Your task to perform on an android device: toggle location history Image 0: 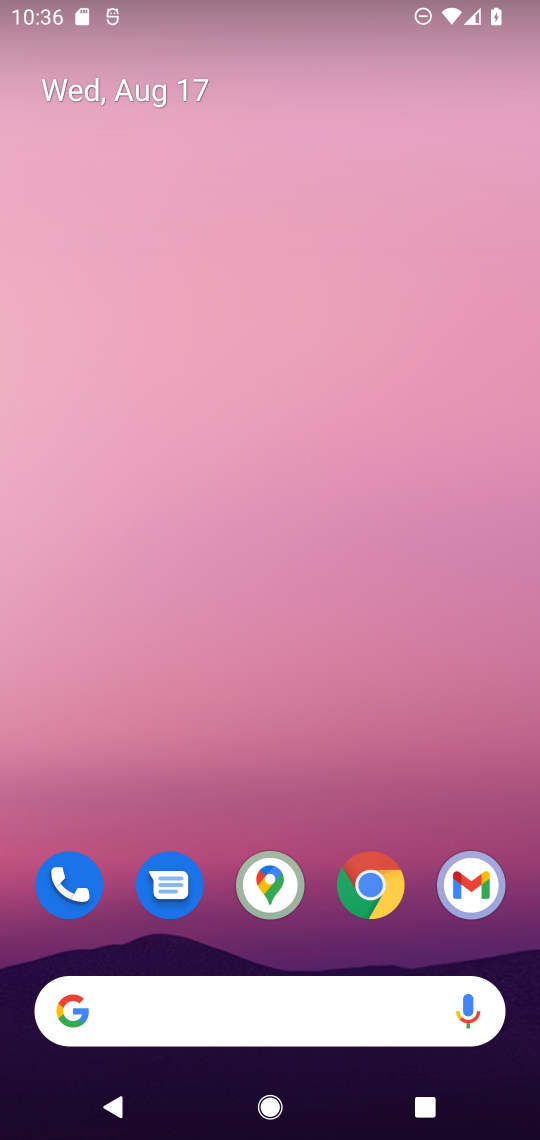
Step 0: click (268, 883)
Your task to perform on an android device: toggle location history Image 1: 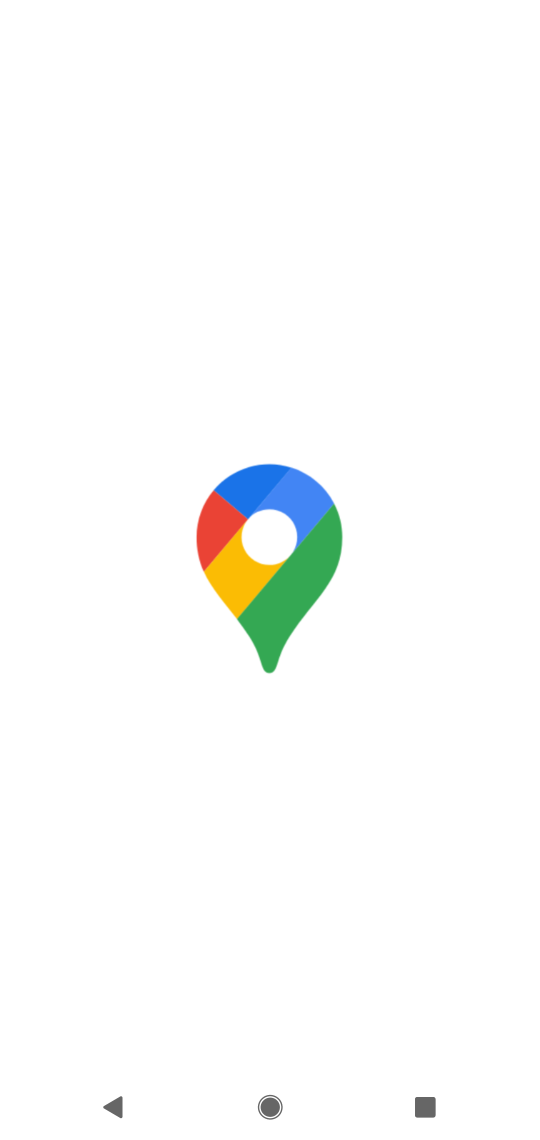
Step 1: click (276, 546)
Your task to perform on an android device: toggle location history Image 2: 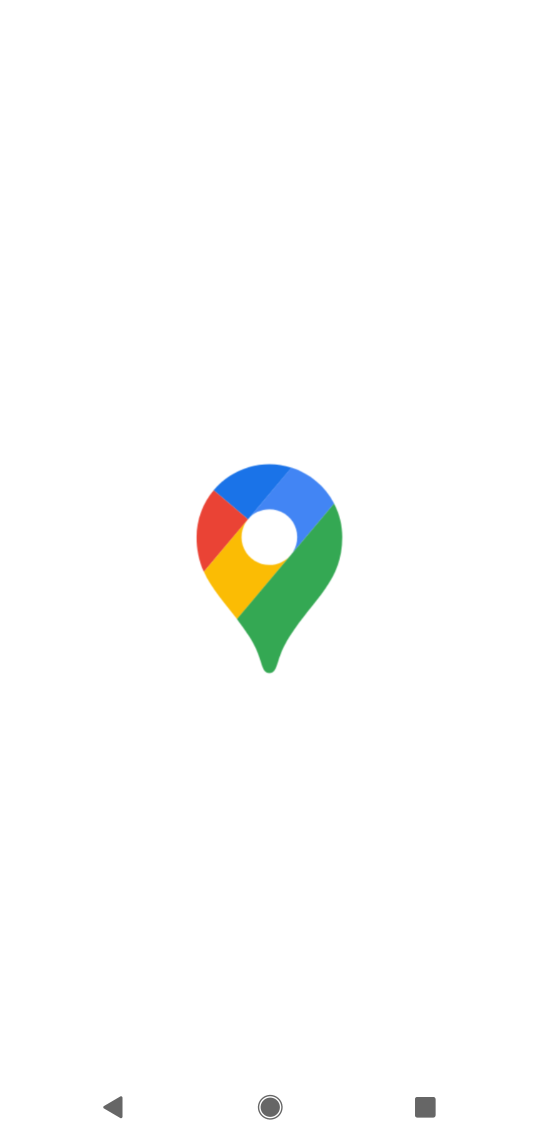
Step 2: task complete